Your task to perform on an android device: Set the phone to "Do not disturb". Image 0: 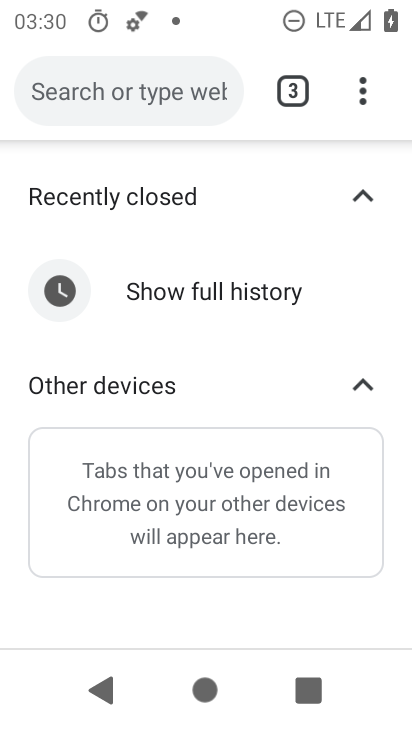
Step 0: press home button
Your task to perform on an android device: Set the phone to "Do not disturb". Image 1: 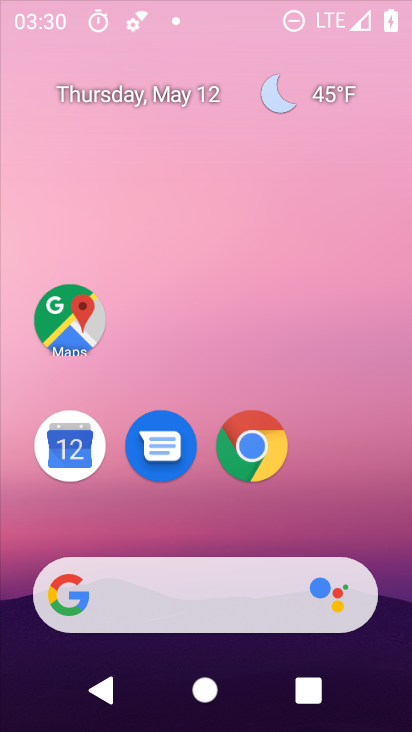
Step 1: drag from (183, 507) to (185, 135)
Your task to perform on an android device: Set the phone to "Do not disturb". Image 2: 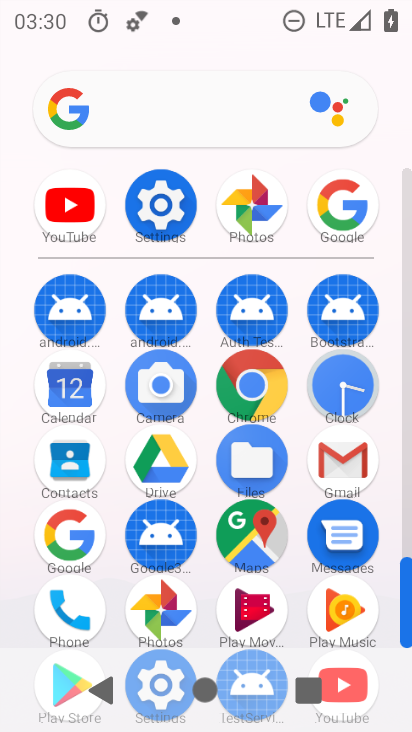
Step 2: click (166, 218)
Your task to perform on an android device: Set the phone to "Do not disturb". Image 3: 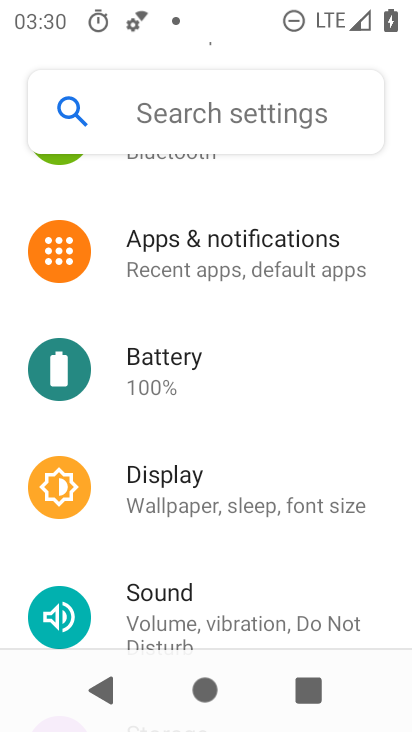
Step 3: click (214, 586)
Your task to perform on an android device: Set the phone to "Do not disturb". Image 4: 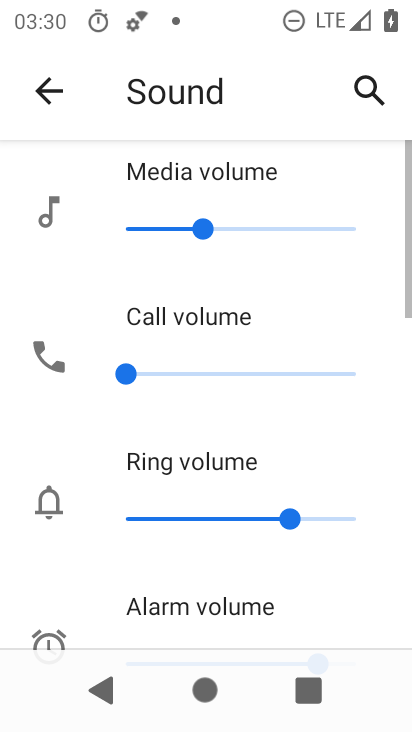
Step 4: drag from (206, 571) to (210, 159)
Your task to perform on an android device: Set the phone to "Do not disturb". Image 5: 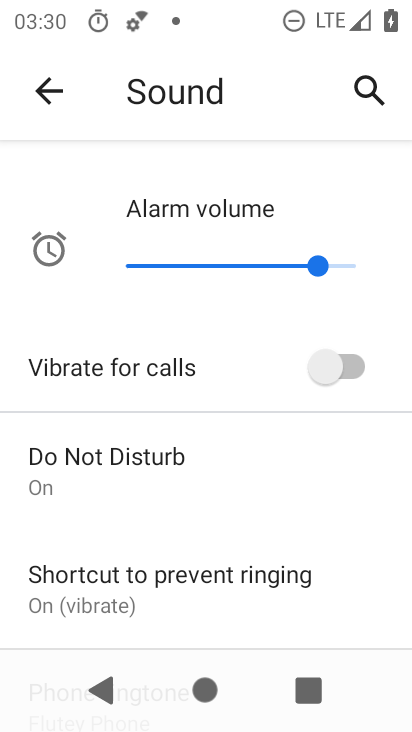
Step 5: click (122, 471)
Your task to perform on an android device: Set the phone to "Do not disturb". Image 6: 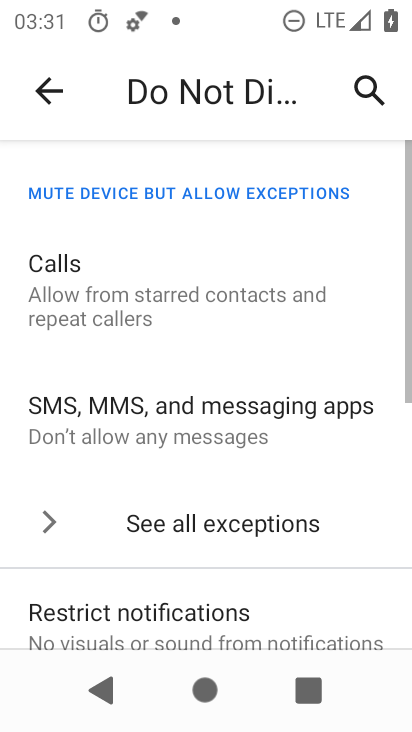
Step 6: task complete